Your task to perform on an android device: find snoozed emails in the gmail app Image 0: 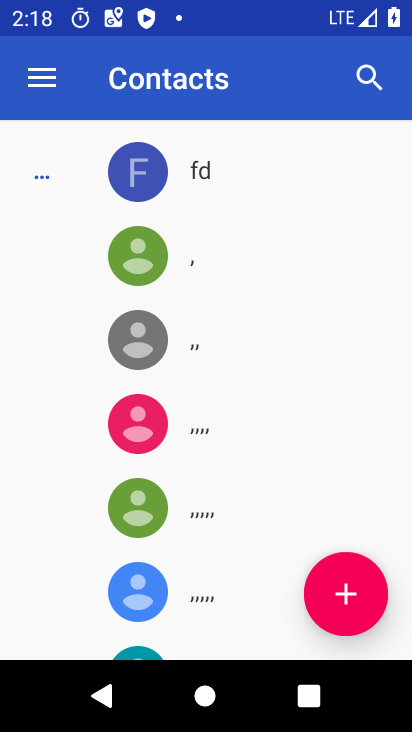
Step 0: press home button
Your task to perform on an android device: find snoozed emails in the gmail app Image 1: 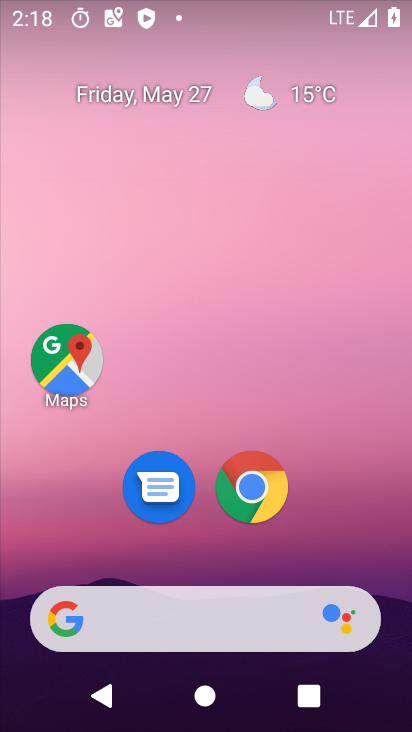
Step 1: drag from (363, 436) to (317, 174)
Your task to perform on an android device: find snoozed emails in the gmail app Image 2: 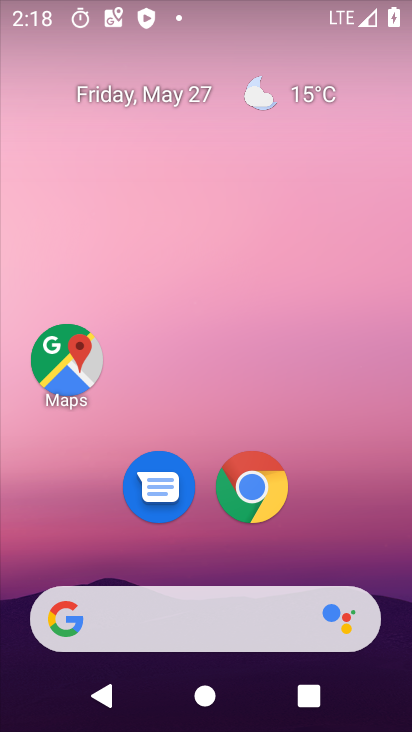
Step 2: click (320, 384)
Your task to perform on an android device: find snoozed emails in the gmail app Image 3: 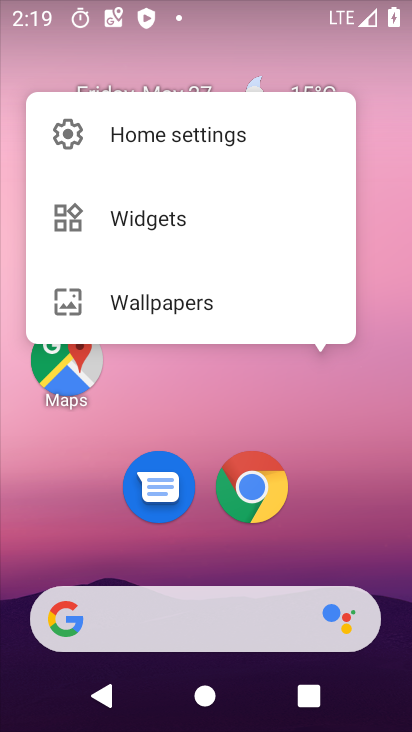
Step 3: click (361, 413)
Your task to perform on an android device: find snoozed emails in the gmail app Image 4: 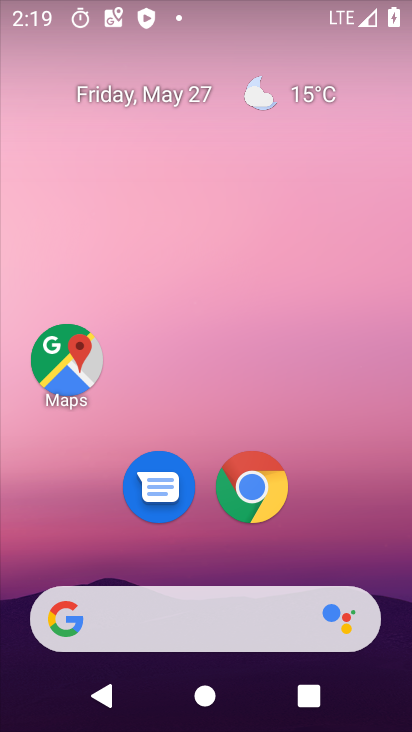
Step 4: drag from (354, 456) to (294, 40)
Your task to perform on an android device: find snoozed emails in the gmail app Image 5: 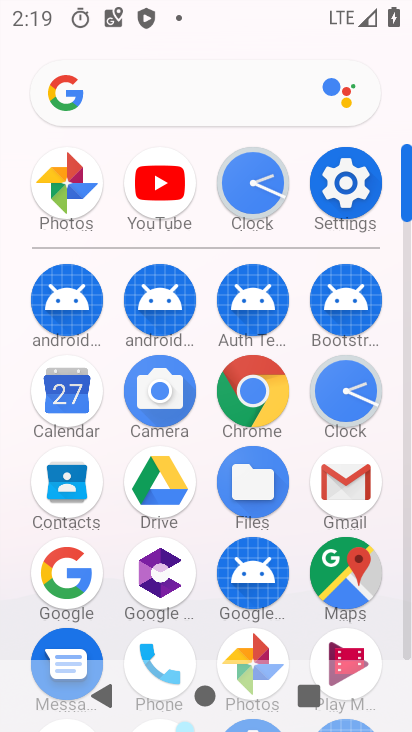
Step 5: click (353, 488)
Your task to perform on an android device: find snoozed emails in the gmail app Image 6: 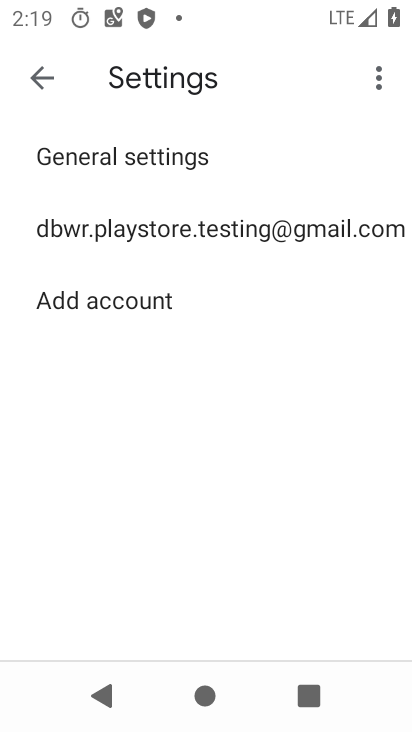
Step 6: click (47, 76)
Your task to perform on an android device: find snoozed emails in the gmail app Image 7: 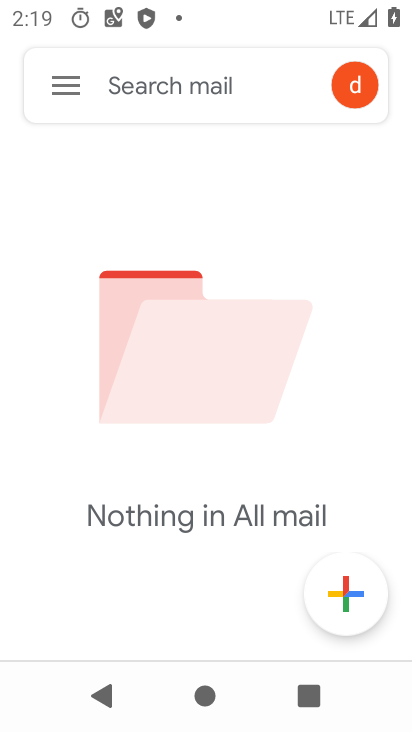
Step 7: click (47, 76)
Your task to perform on an android device: find snoozed emails in the gmail app Image 8: 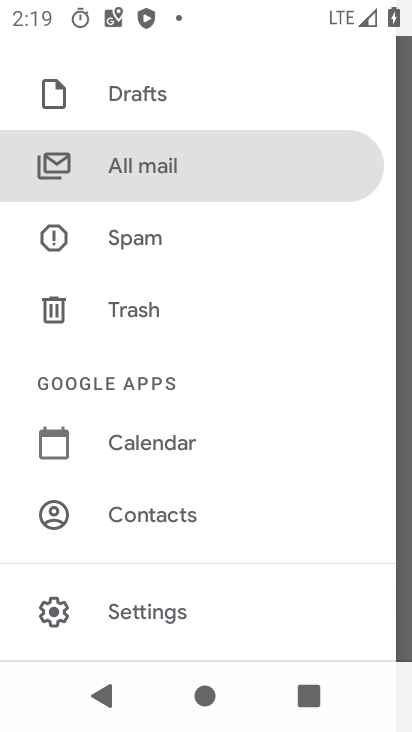
Step 8: click (409, 241)
Your task to perform on an android device: find snoozed emails in the gmail app Image 9: 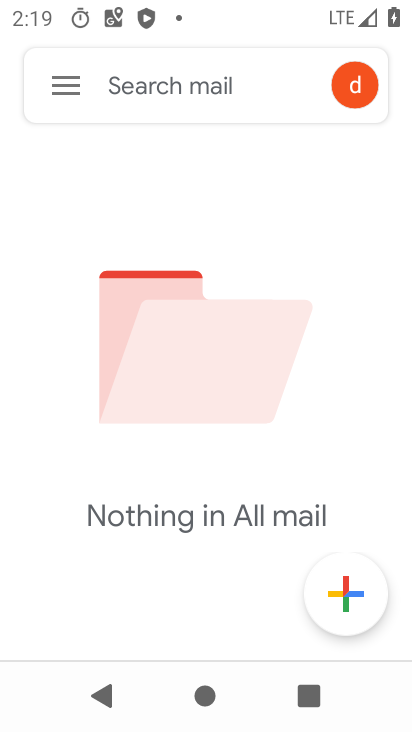
Step 9: task complete